Your task to perform on an android device: create a new album in the google photos Image 0: 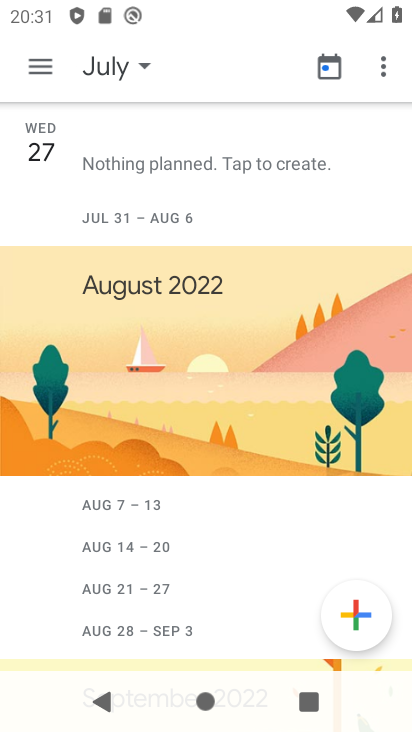
Step 0: press home button
Your task to perform on an android device: create a new album in the google photos Image 1: 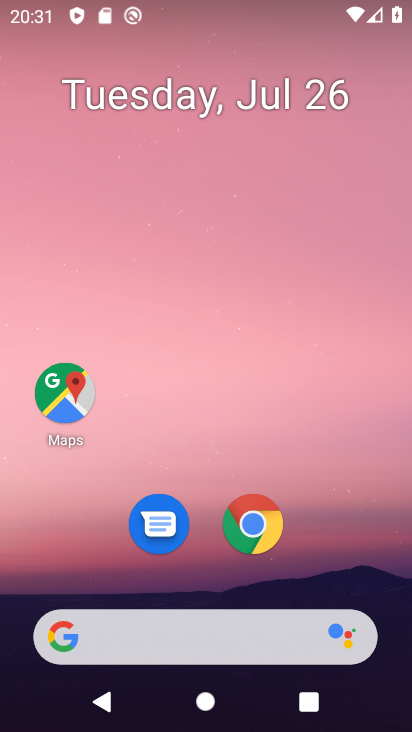
Step 1: drag from (168, 642) to (309, 112)
Your task to perform on an android device: create a new album in the google photos Image 2: 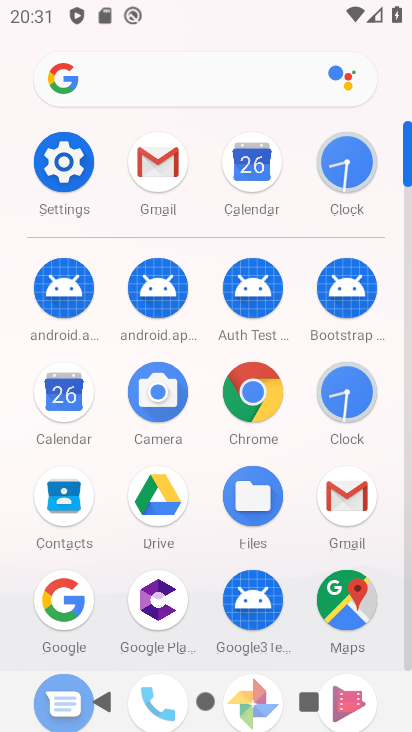
Step 2: drag from (211, 578) to (367, 79)
Your task to perform on an android device: create a new album in the google photos Image 3: 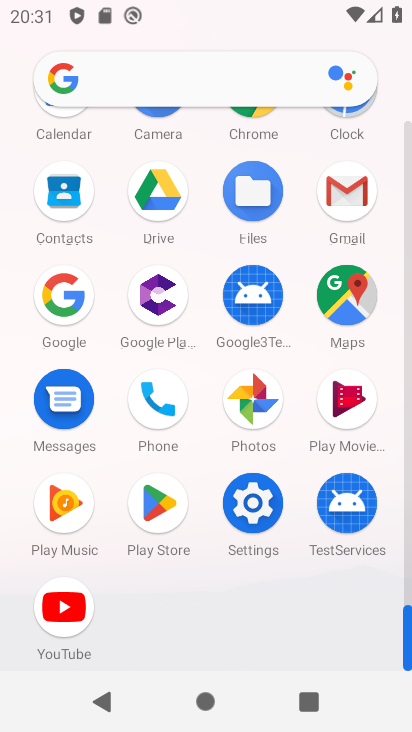
Step 3: click (254, 398)
Your task to perform on an android device: create a new album in the google photos Image 4: 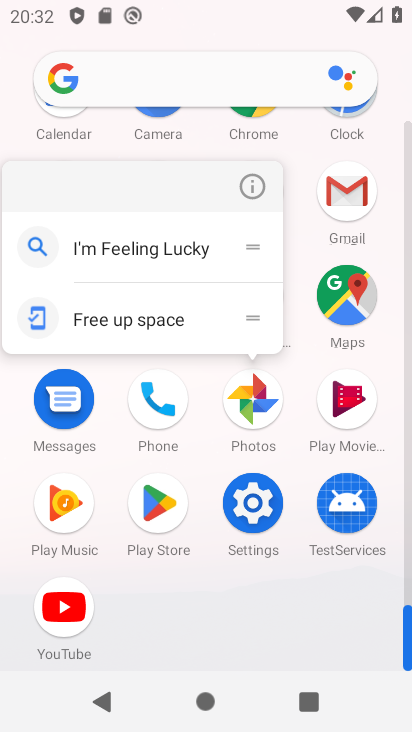
Step 4: click (251, 408)
Your task to perform on an android device: create a new album in the google photos Image 5: 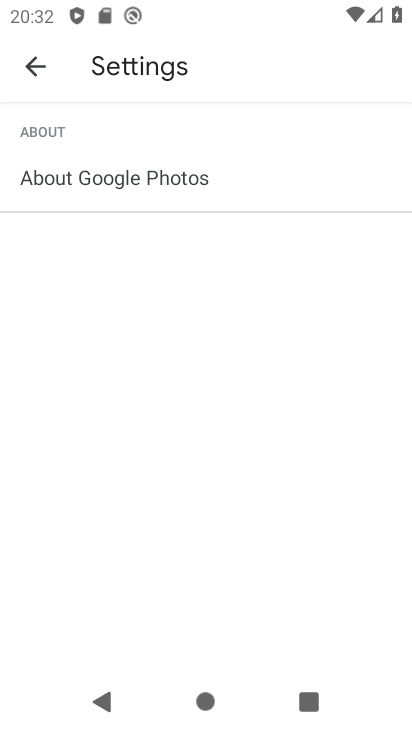
Step 5: click (33, 63)
Your task to perform on an android device: create a new album in the google photos Image 6: 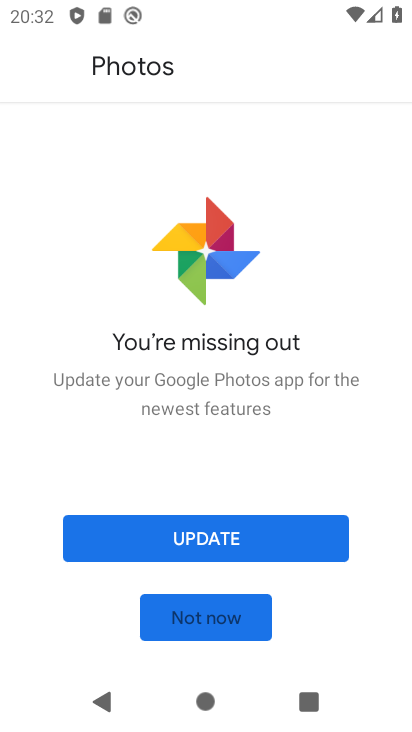
Step 6: click (227, 619)
Your task to perform on an android device: create a new album in the google photos Image 7: 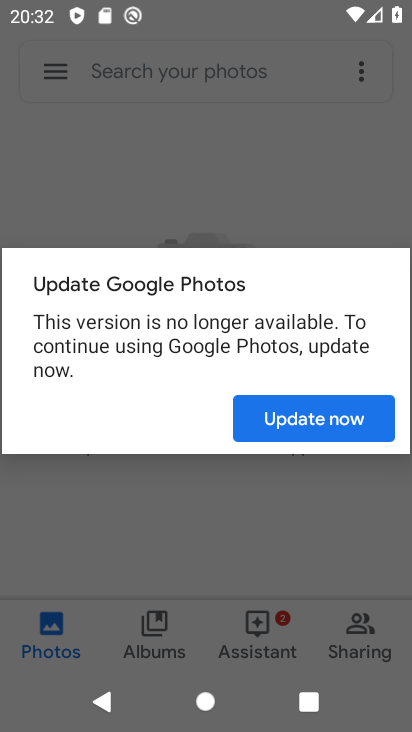
Step 7: click (312, 418)
Your task to perform on an android device: create a new album in the google photos Image 8: 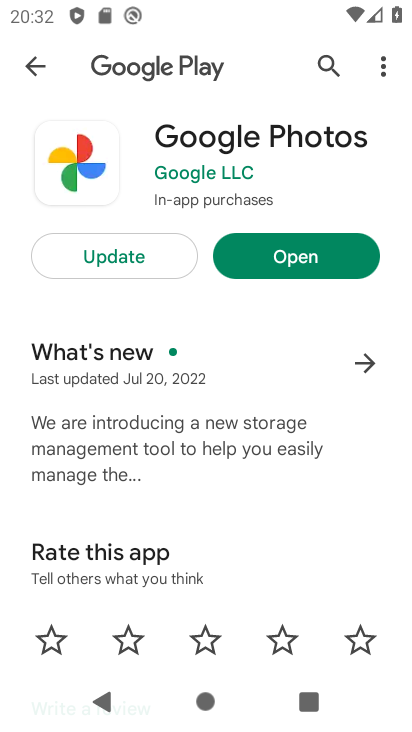
Step 8: click (117, 257)
Your task to perform on an android device: create a new album in the google photos Image 9: 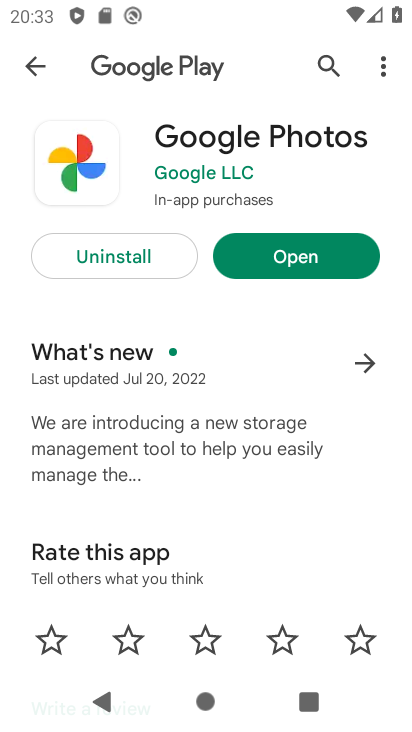
Step 9: click (327, 251)
Your task to perform on an android device: create a new album in the google photos Image 10: 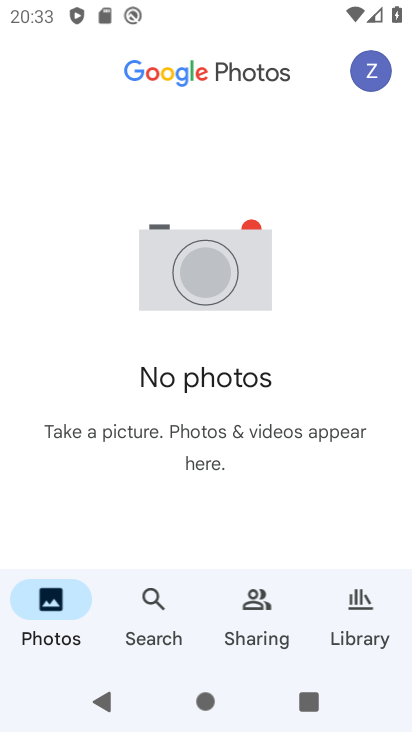
Step 10: click (350, 624)
Your task to perform on an android device: create a new album in the google photos Image 11: 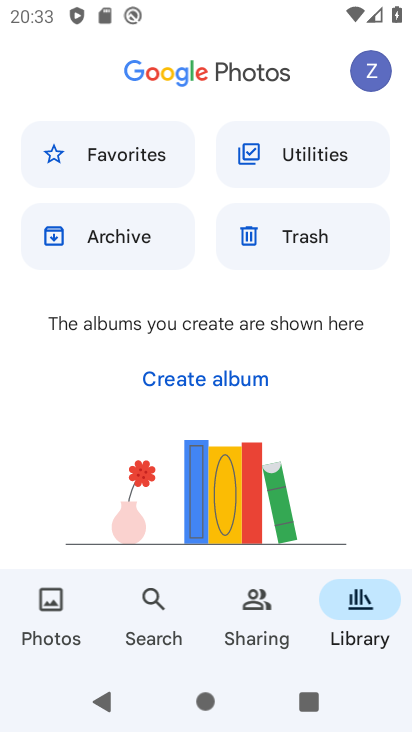
Step 11: click (225, 377)
Your task to perform on an android device: create a new album in the google photos Image 12: 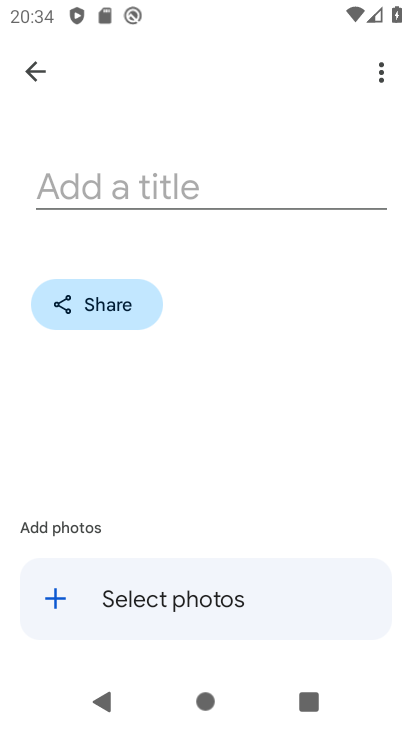
Step 12: click (212, 377)
Your task to perform on an android device: create a new album in the google photos Image 13: 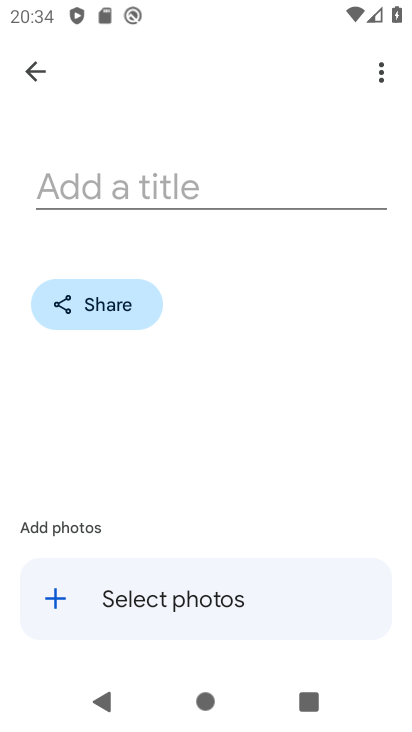
Step 13: click (33, 61)
Your task to perform on an android device: create a new album in the google photos Image 14: 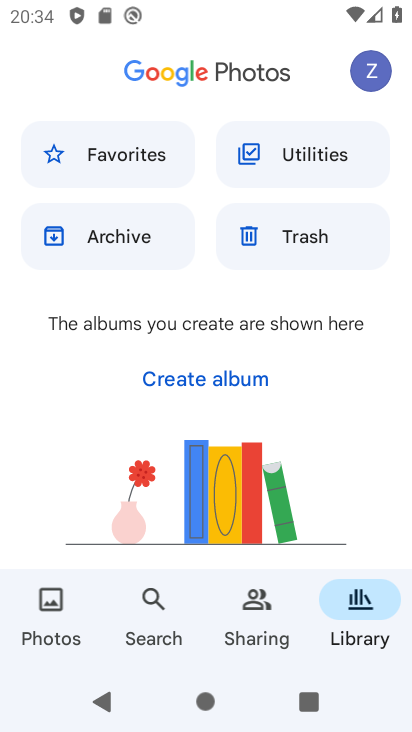
Step 14: task complete